Your task to perform on an android device: check google app version Image 0: 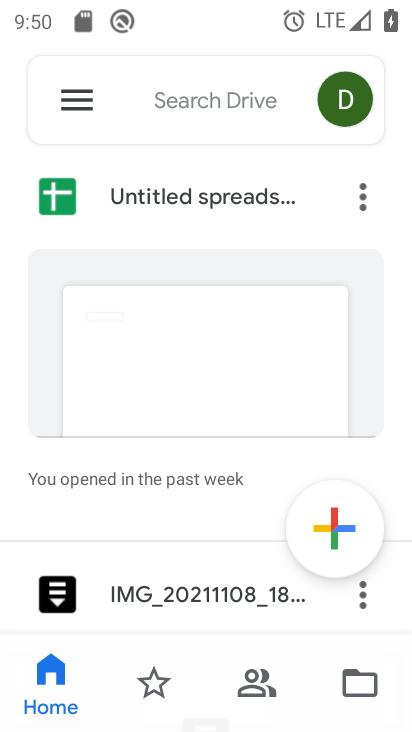
Step 0: press home button
Your task to perform on an android device: check google app version Image 1: 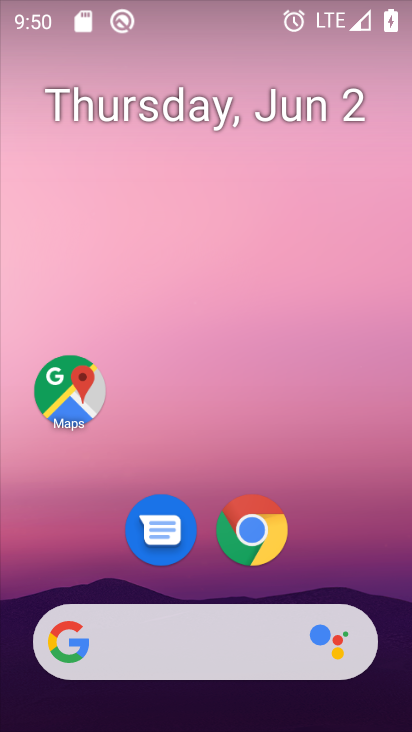
Step 1: drag from (200, 602) to (190, 252)
Your task to perform on an android device: check google app version Image 2: 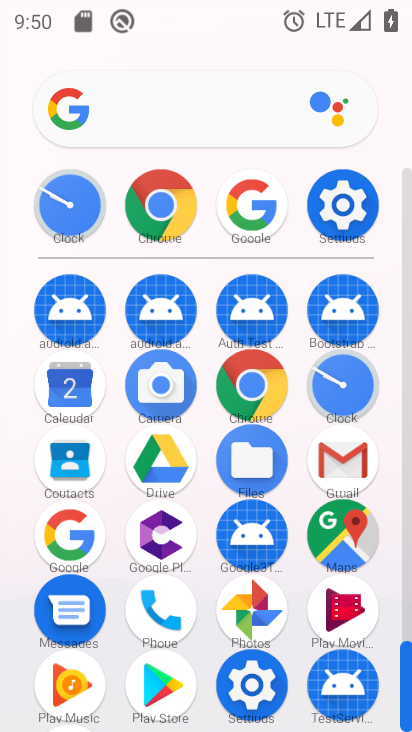
Step 2: click (63, 534)
Your task to perform on an android device: check google app version Image 3: 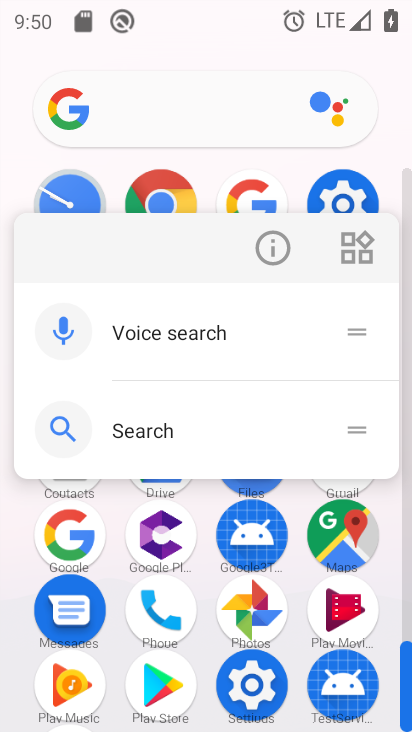
Step 3: click (271, 254)
Your task to perform on an android device: check google app version Image 4: 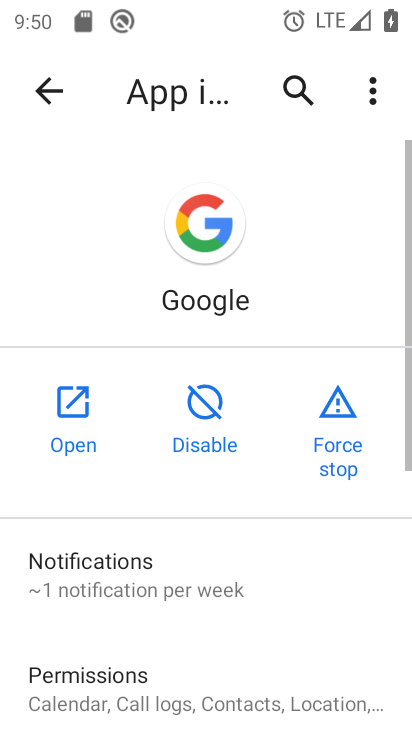
Step 4: drag from (175, 679) to (160, 332)
Your task to perform on an android device: check google app version Image 5: 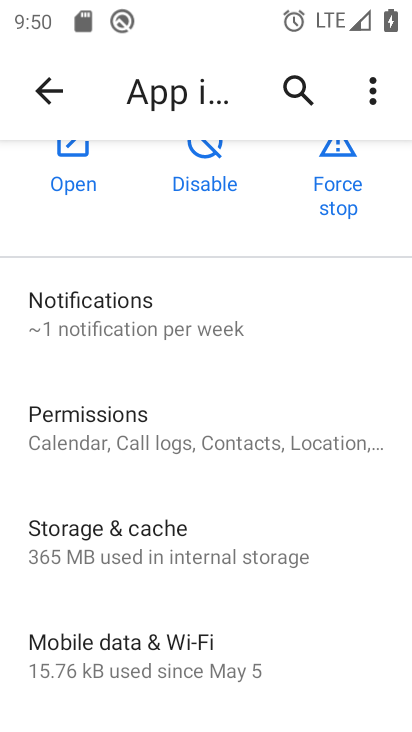
Step 5: drag from (167, 695) to (161, 261)
Your task to perform on an android device: check google app version Image 6: 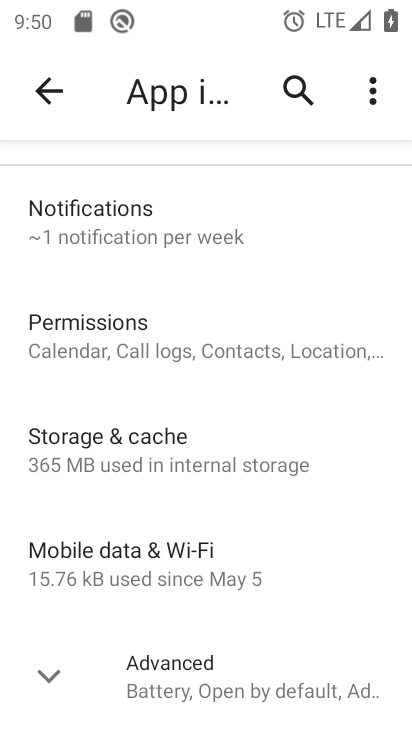
Step 6: click (202, 659)
Your task to perform on an android device: check google app version Image 7: 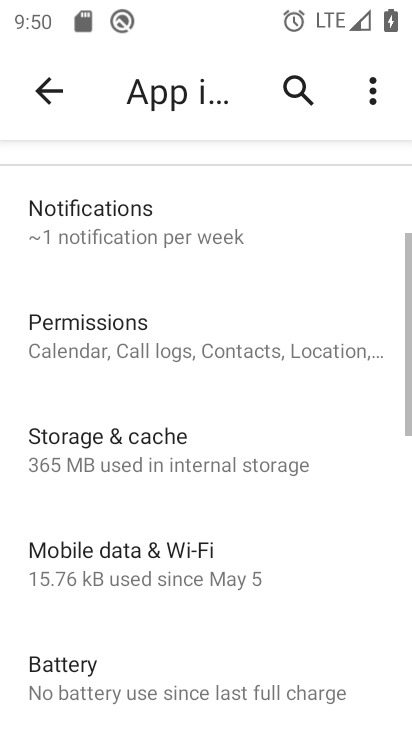
Step 7: task complete